Your task to perform on an android device: Go to wifi settings Image 0: 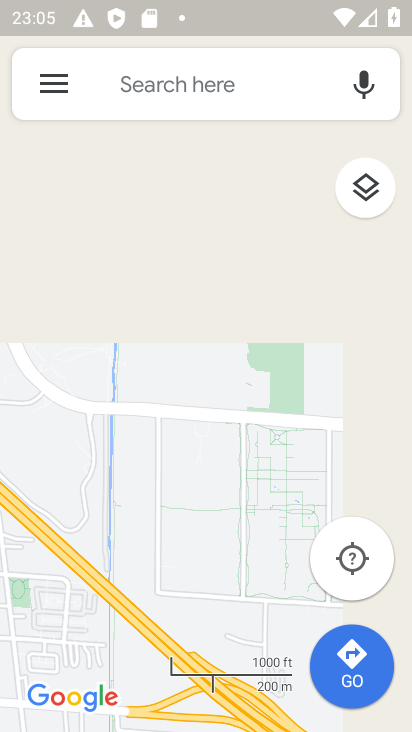
Step 0: press back button
Your task to perform on an android device: Go to wifi settings Image 1: 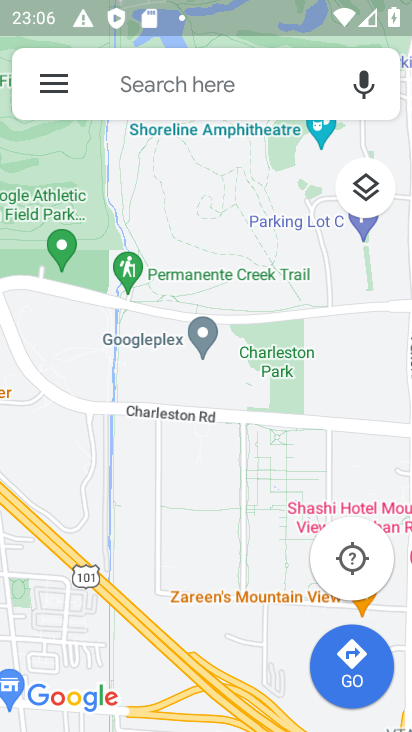
Step 1: press home button
Your task to perform on an android device: Go to wifi settings Image 2: 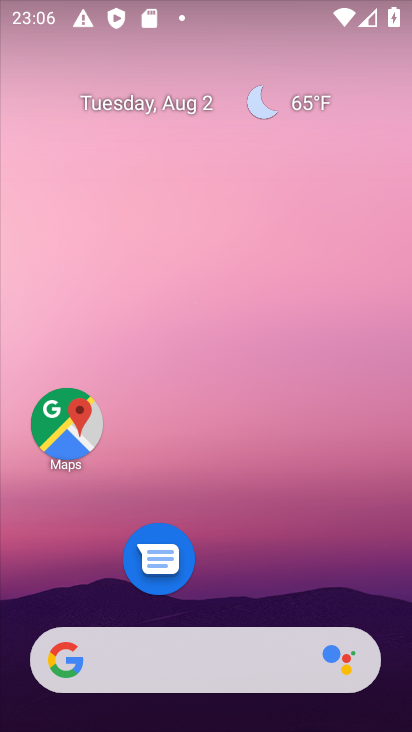
Step 2: click (67, 76)
Your task to perform on an android device: Go to wifi settings Image 3: 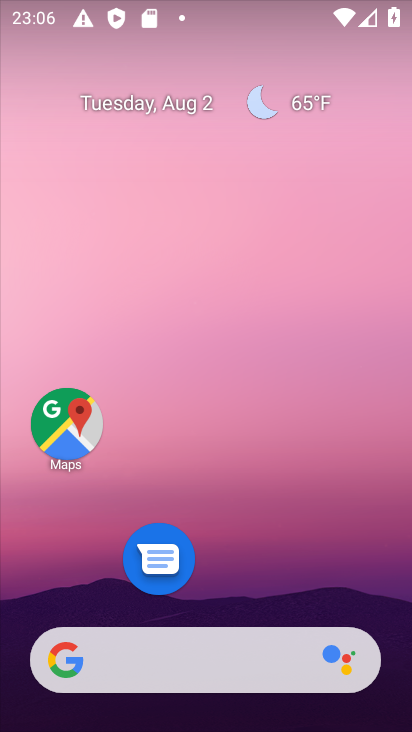
Step 3: drag from (239, 571) to (181, 147)
Your task to perform on an android device: Go to wifi settings Image 4: 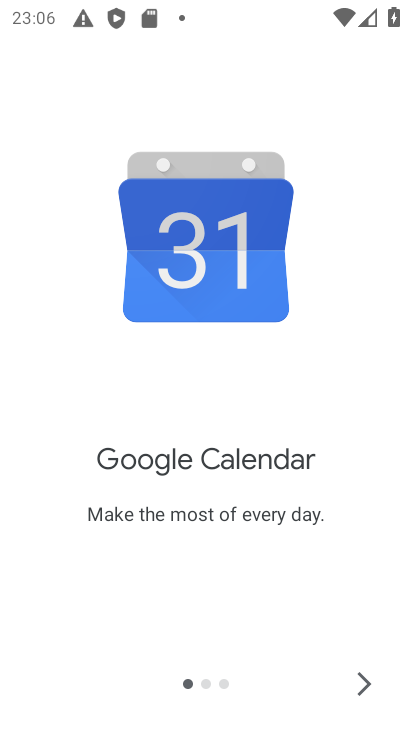
Step 4: drag from (226, 621) to (190, 102)
Your task to perform on an android device: Go to wifi settings Image 5: 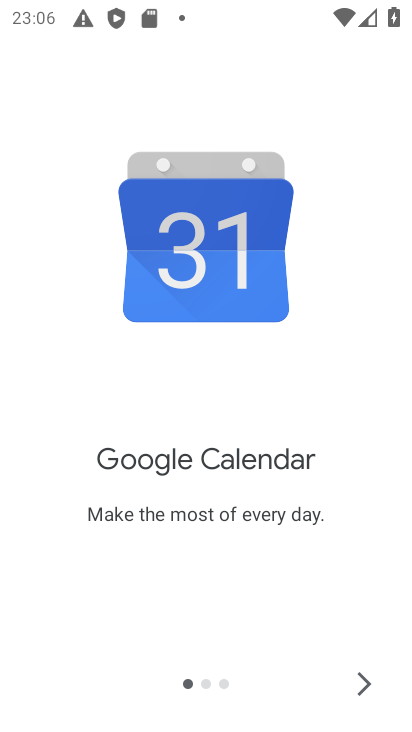
Step 5: drag from (252, 536) to (194, 199)
Your task to perform on an android device: Go to wifi settings Image 6: 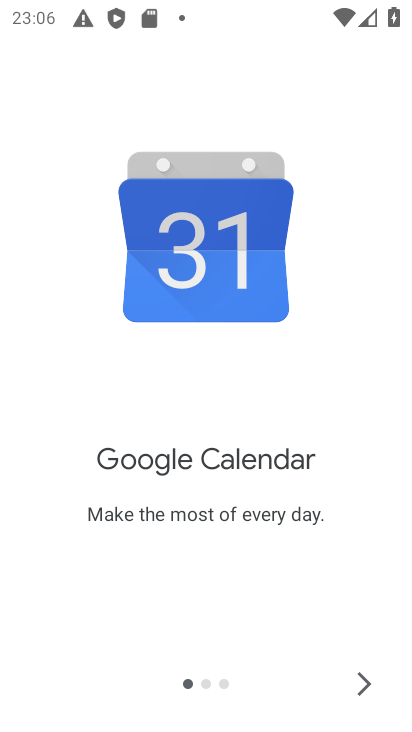
Step 6: press back button
Your task to perform on an android device: Go to wifi settings Image 7: 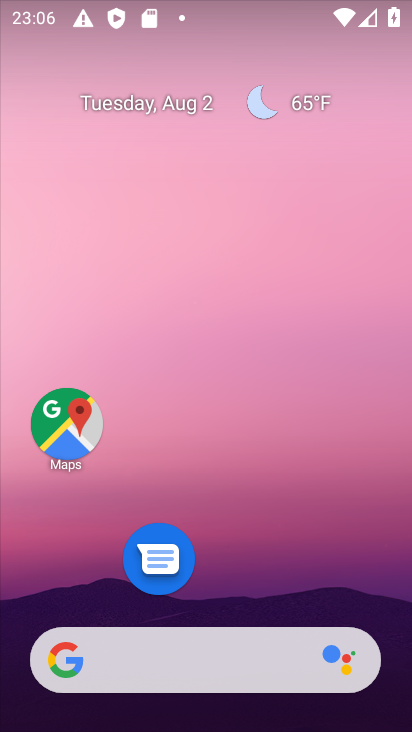
Step 7: drag from (232, 554) to (175, 169)
Your task to perform on an android device: Go to wifi settings Image 8: 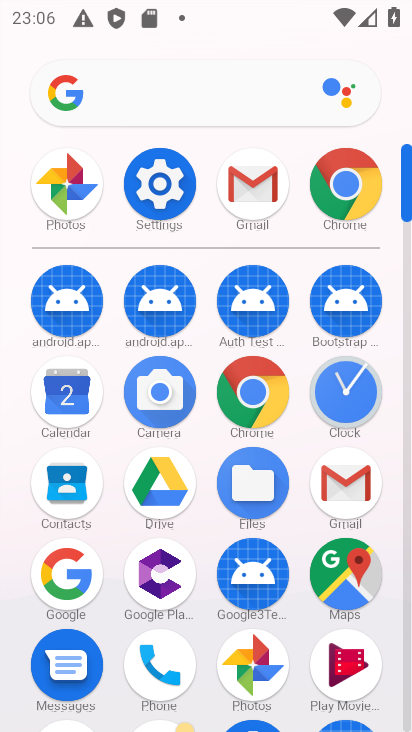
Step 8: click (152, 194)
Your task to perform on an android device: Go to wifi settings Image 9: 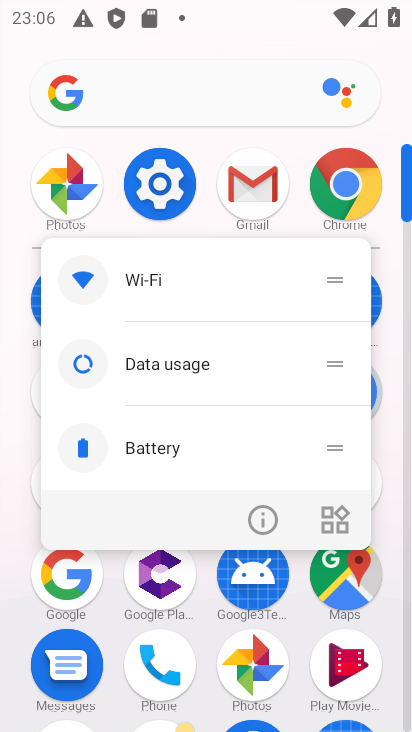
Step 9: click (152, 194)
Your task to perform on an android device: Go to wifi settings Image 10: 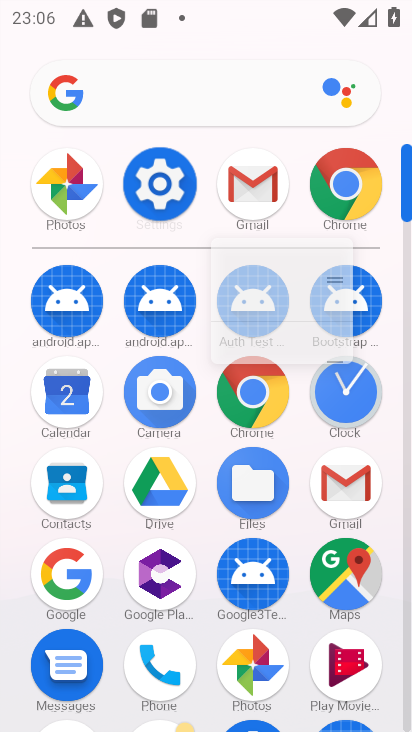
Step 10: click (152, 194)
Your task to perform on an android device: Go to wifi settings Image 11: 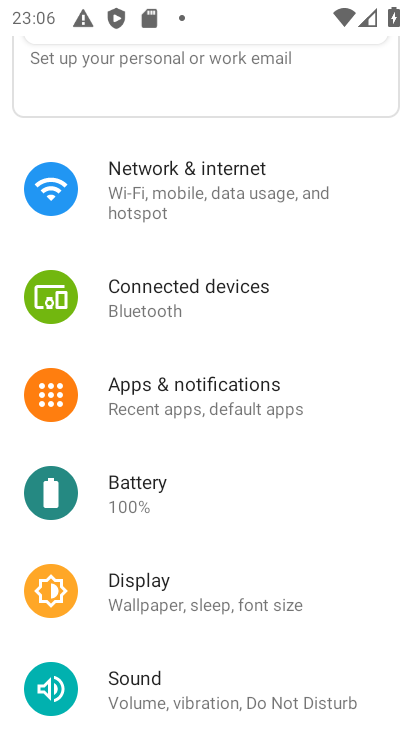
Step 11: click (141, 170)
Your task to perform on an android device: Go to wifi settings Image 12: 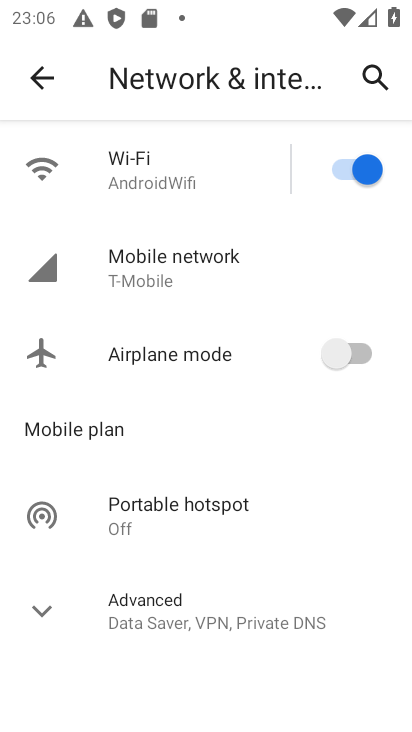
Step 12: task complete